Your task to perform on an android device: uninstall "Google Chat" Image 0: 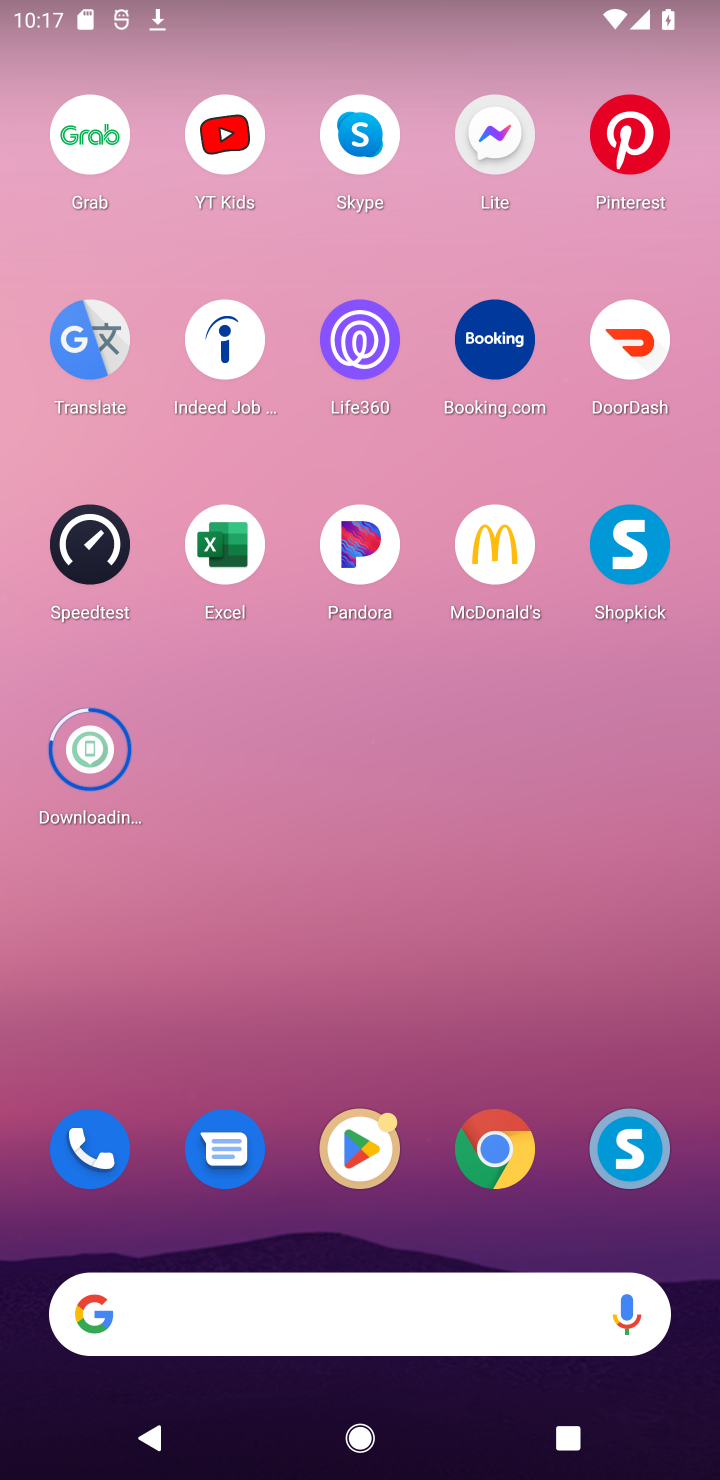
Step 0: click (347, 1141)
Your task to perform on an android device: uninstall "Google Chat" Image 1: 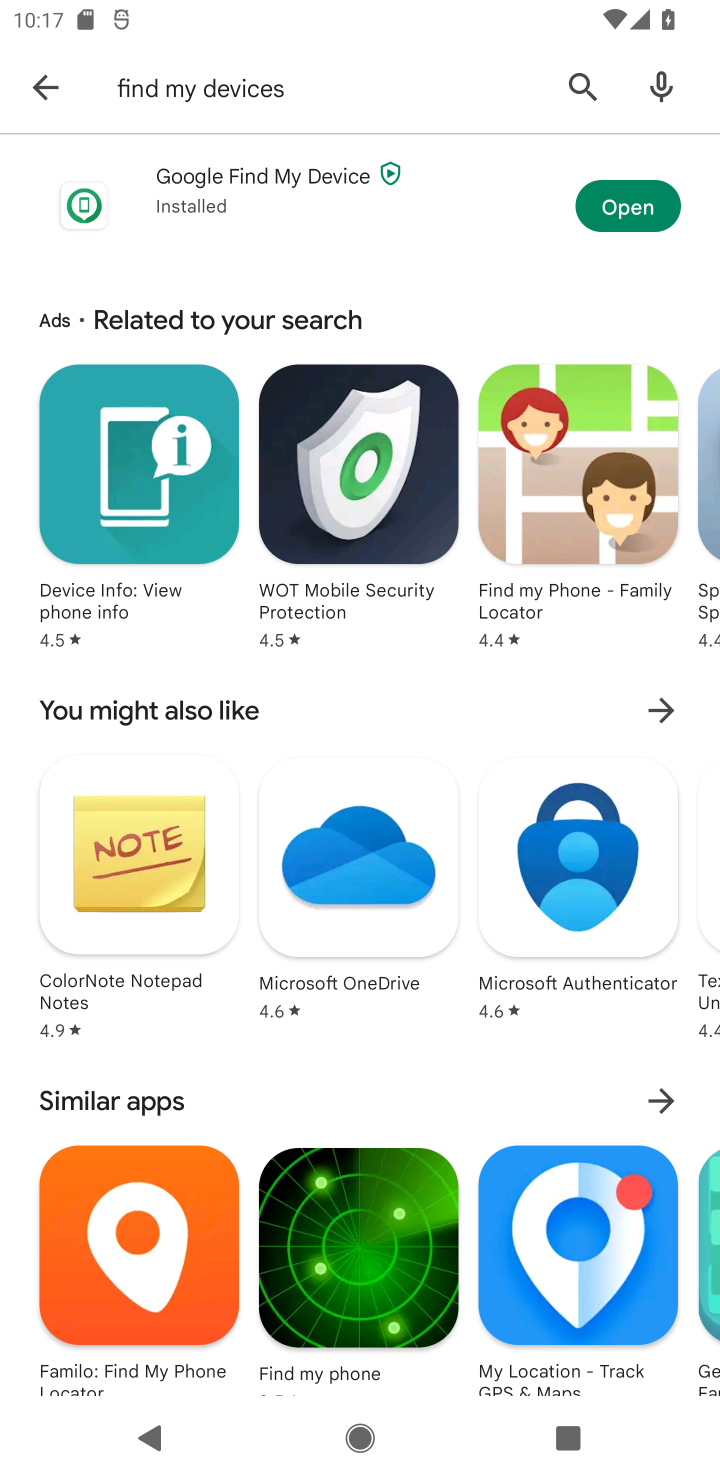
Step 1: click (565, 108)
Your task to perform on an android device: uninstall "Google Chat" Image 2: 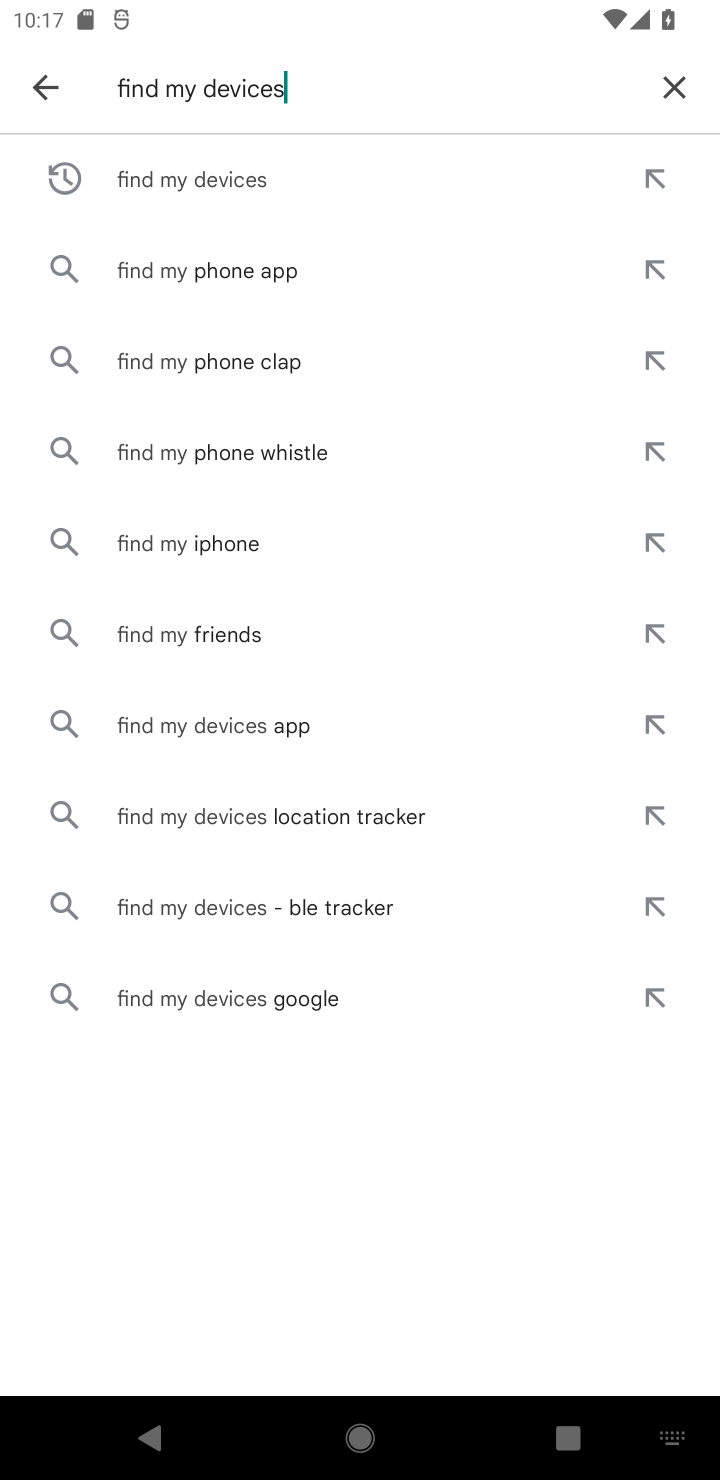
Step 2: click (673, 89)
Your task to perform on an android device: uninstall "Google Chat" Image 3: 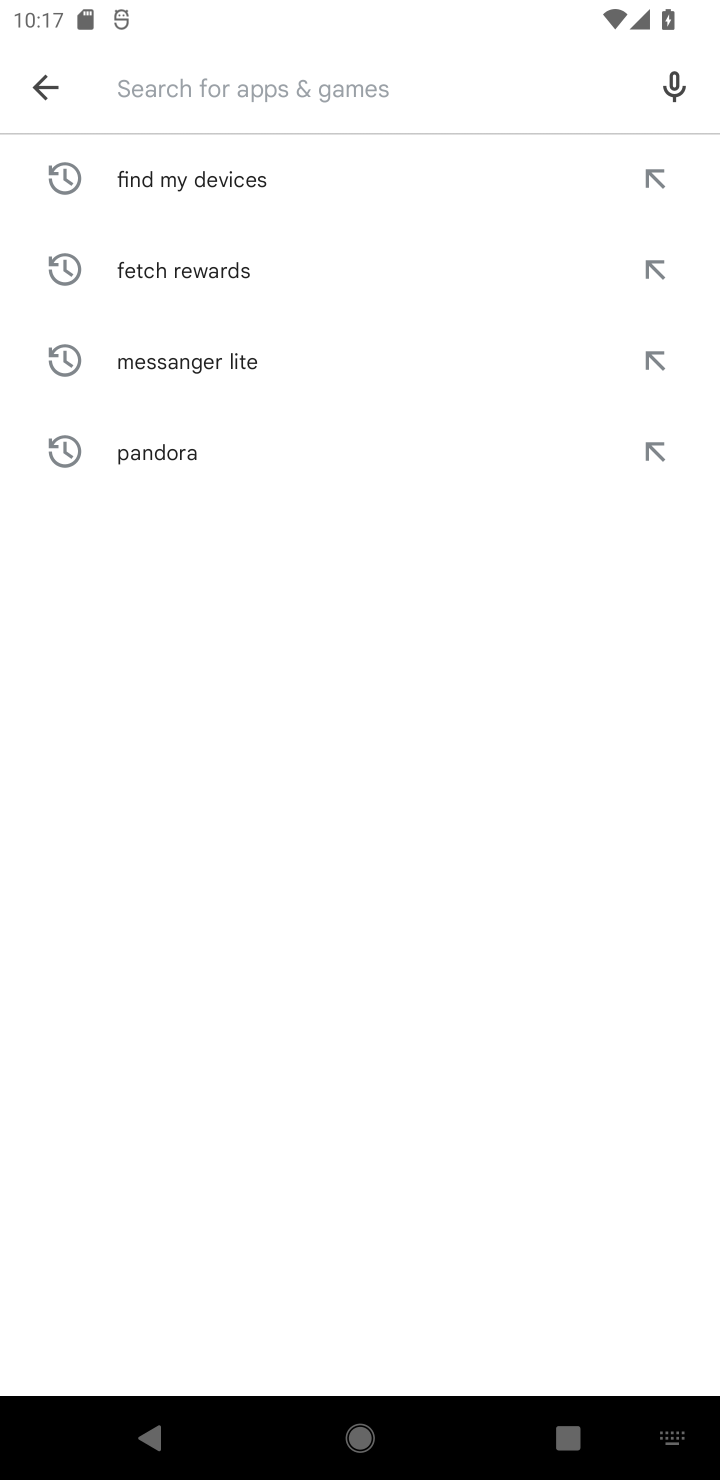
Step 3: type "google chat"
Your task to perform on an android device: uninstall "Google Chat" Image 4: 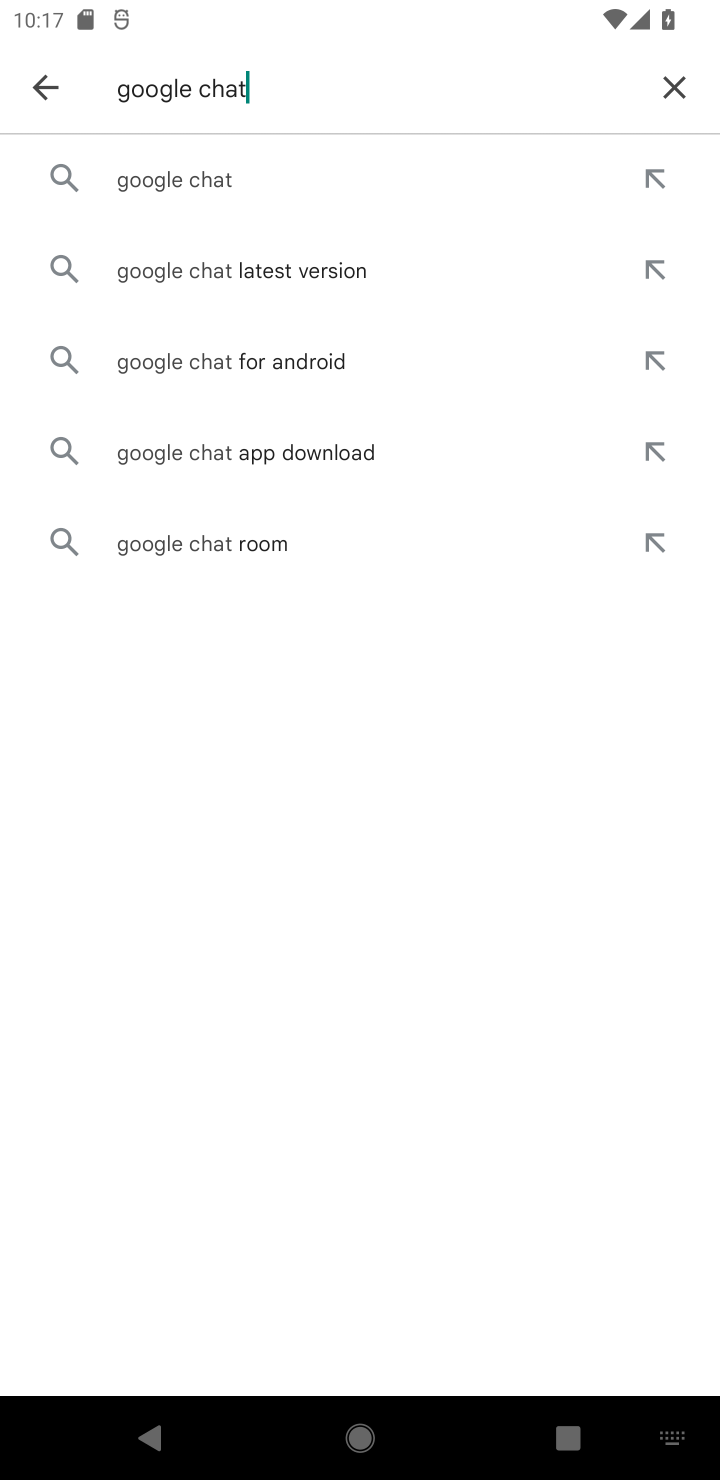
Step 4: click (223, 188)
Your task to perform on an android device: uninstall "Google Chat" Image 5: 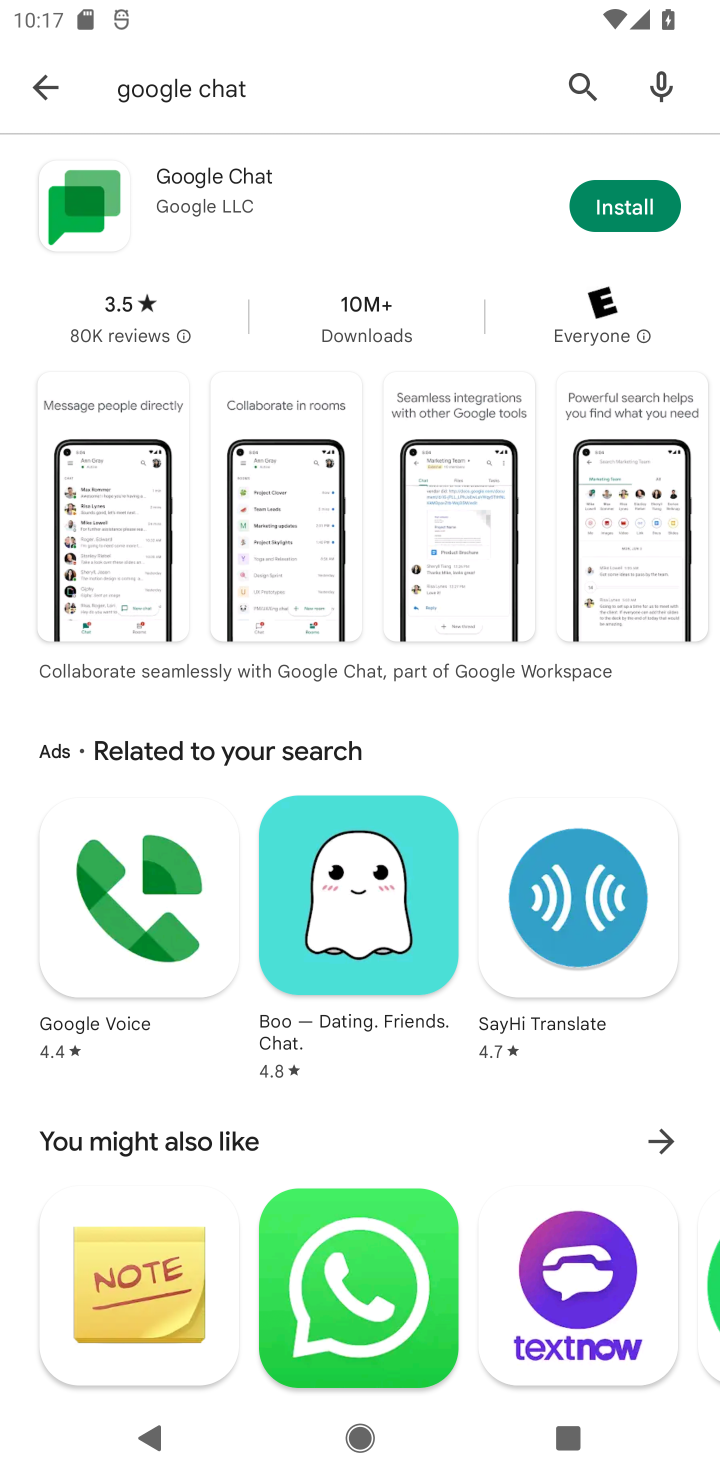
Step 5: click (598, 210)
Your task to perform on an android device: uninstall "Google Chat" Image 6: 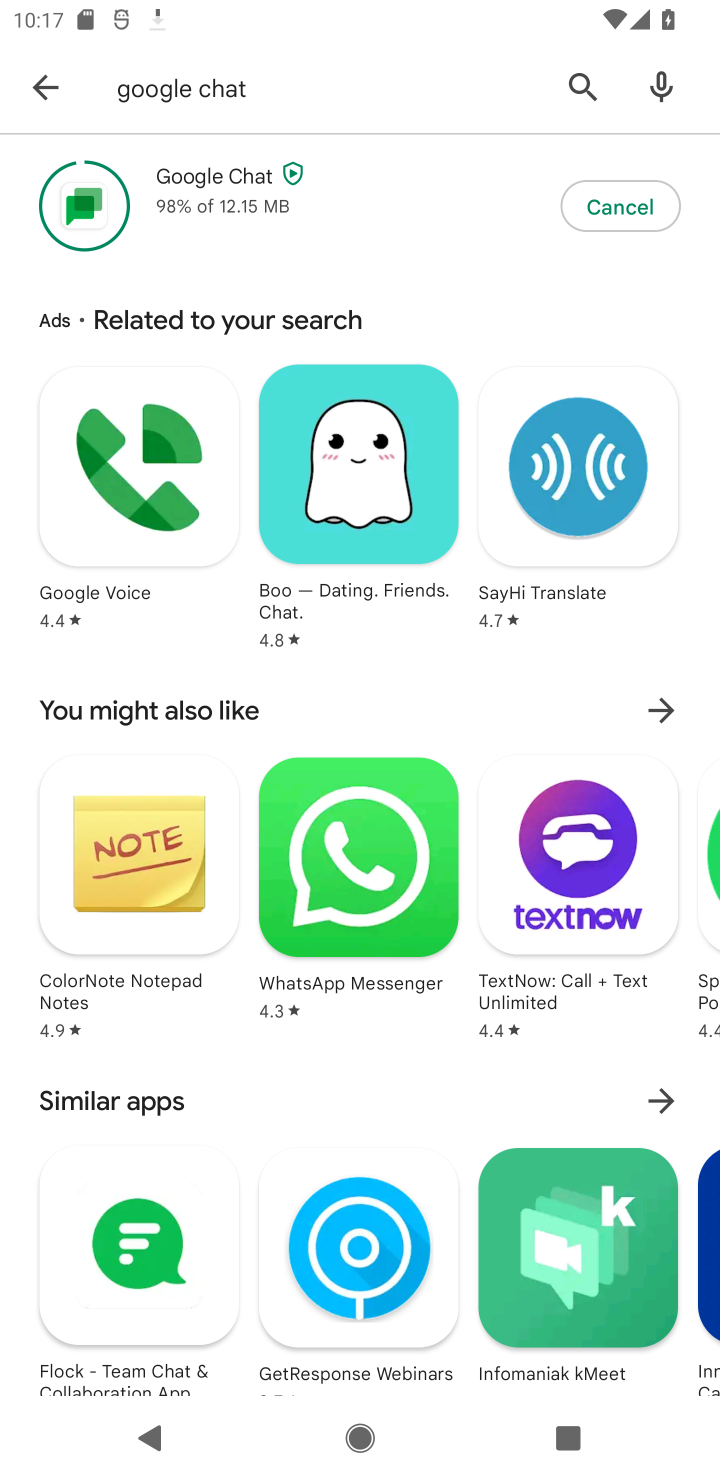
Step 6: task complete